Your task to perform on an android device: open app "Spotify" (install if not already installed) and enter user name: "infallible@icloud.com" and password: "implored" Image 0: 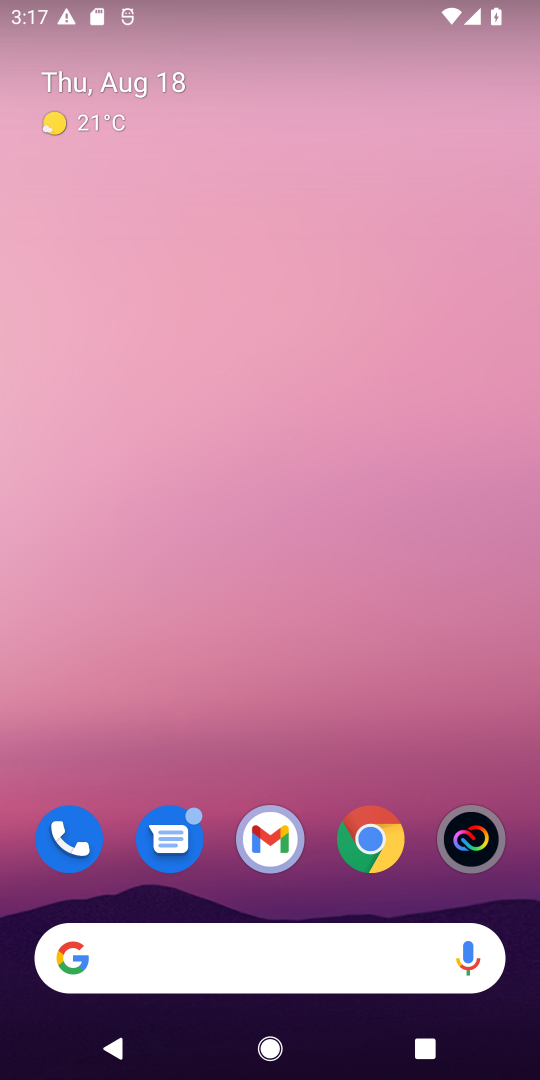
Step 0: drag from (302, 919) to (159, 9)
Your task to perform on an android device: open app "Spotify" (install if not already installed) and enter user name: "infallible@icloud.com" and password: "implored" Image 1: 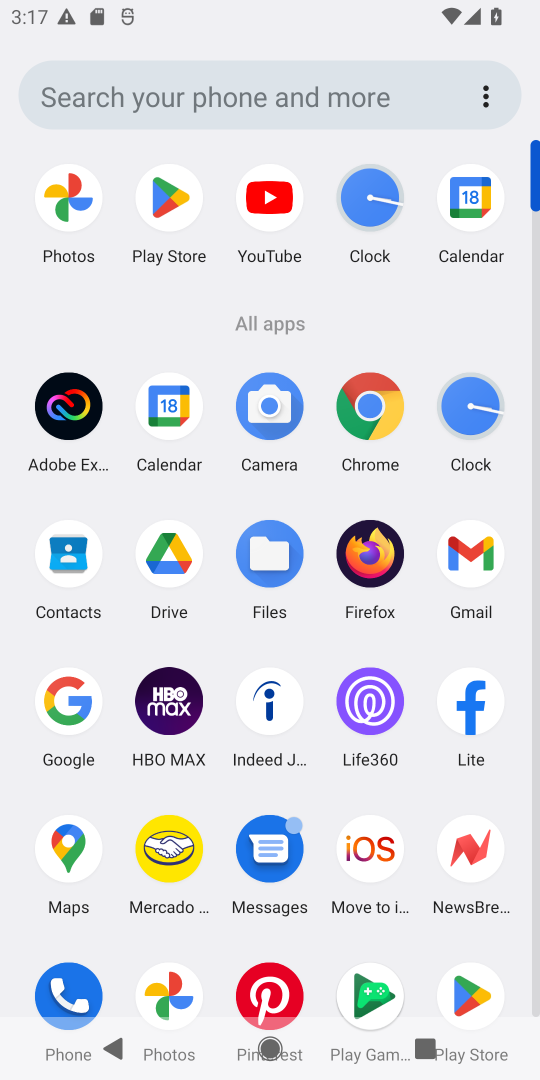
Step 1: click (461, 1004)
Your task to perform on an android device: open app "Spotify" (install if not already installed) and enter user name: "infallible@icloud.com" and password: "implored" Image 2: 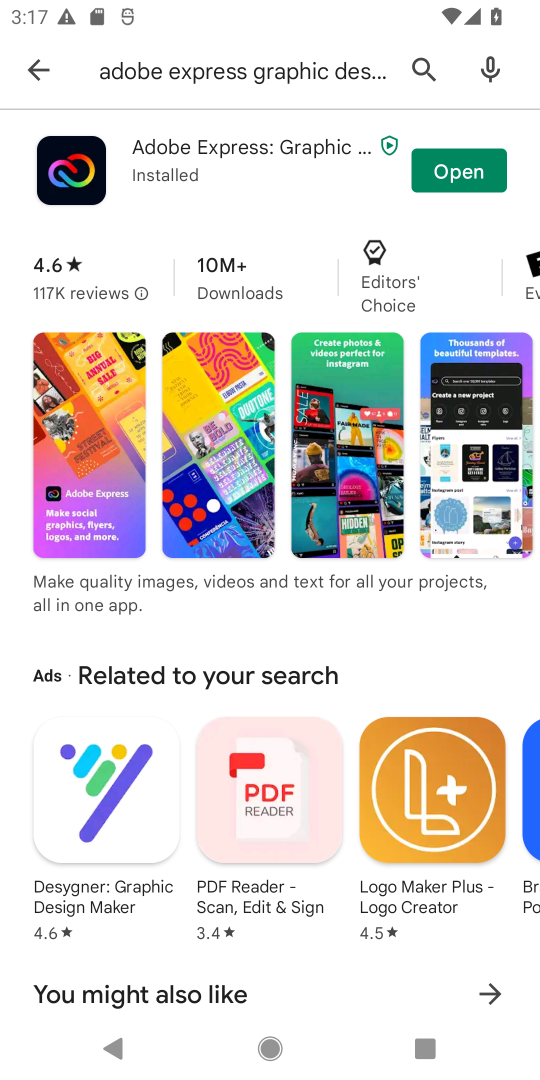
Step 2: click (32, 76)
Your task to perform on an android device: open app "Spotify" (install if not already installed) and enter user name: "infallible@icloud.com" and password: "implored" Image 3: 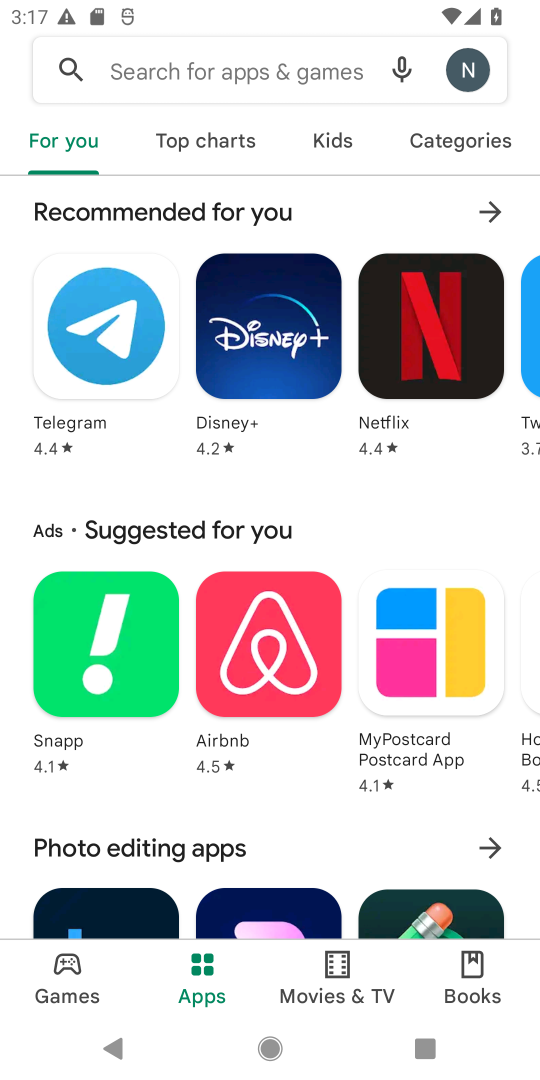
Step 3: click (190, 70)
Your task to perform on an android device: open app "Spotify" (install if not already installed) and enter user name: "infallible@icloud.com" and password: "implored" Image 4: 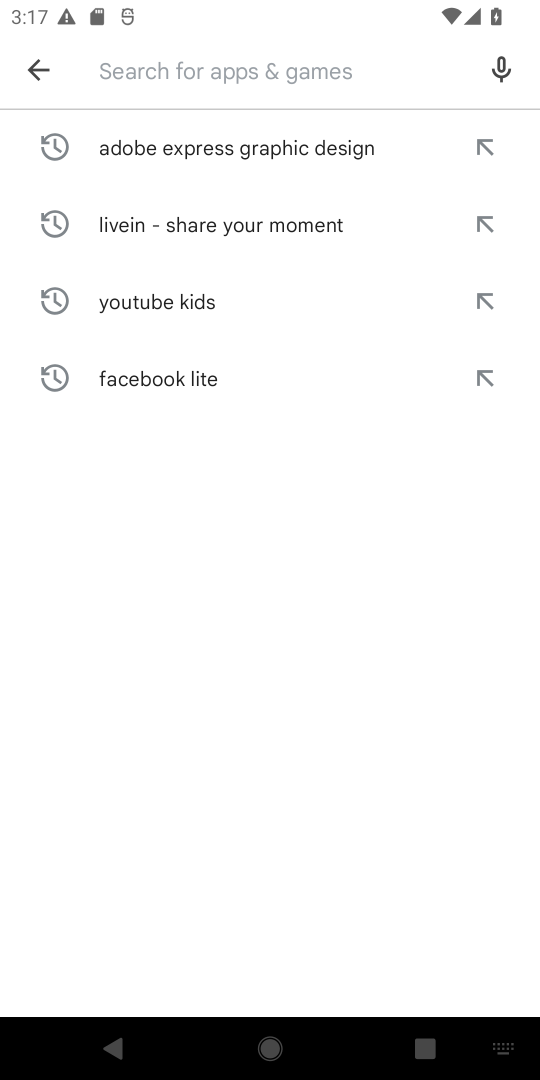
Step 4: type "Spotify"
Your task to perform on an android device: open app "Spotify" (install if not already installed) and enter user name: "infallible@icloud.com" and password: "implored" Image 5: 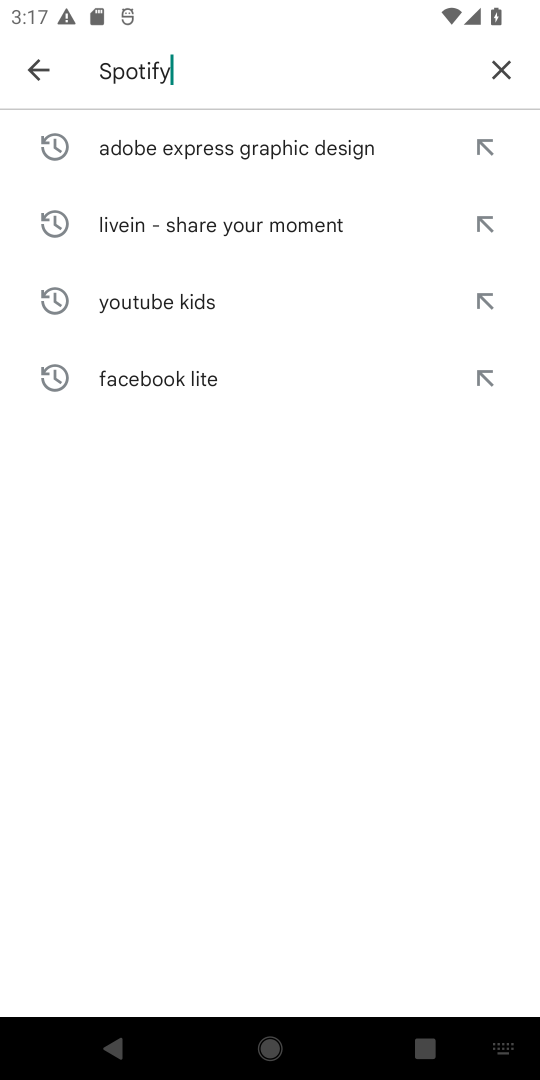
Step 5: type ""
Your task to perform on an android device: open app "Spotify" (install if not already installed) and enter user name: "infallible@icloud.com" and password: "implored" Image 6: 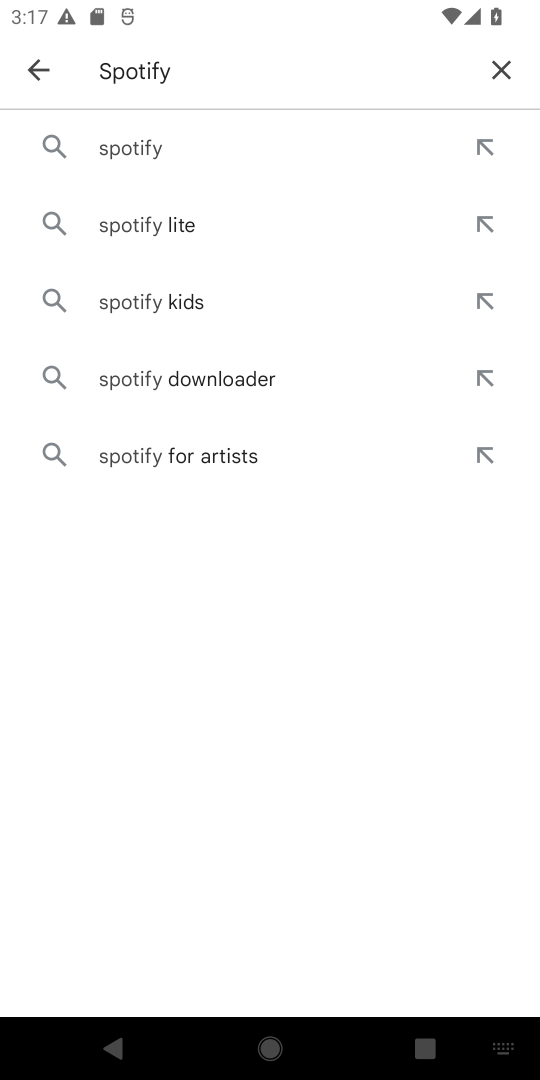
Step 6: click (162, 153)
Your task to perform on an android device: open app "Spotify" (install if not already installed) and enter user name: "infallible@icloud.com" and password: "implored" Image 7: 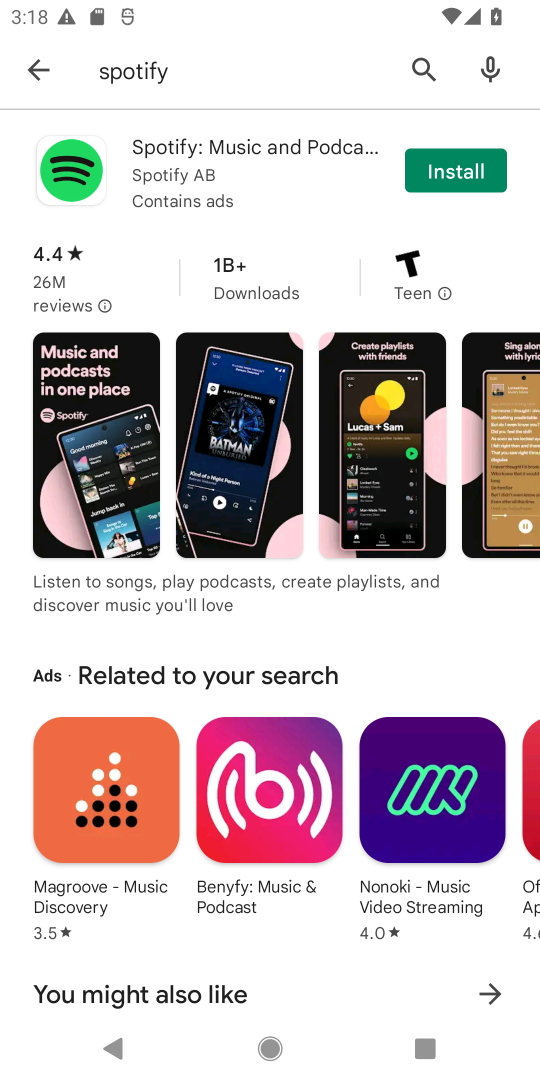
Step 7: click (456, 167)
Your task to perform on an android device: open app "Spotify" (install if not already installed) and enter user name: "infallible@icloud.com" and password: "implored" Image 8: 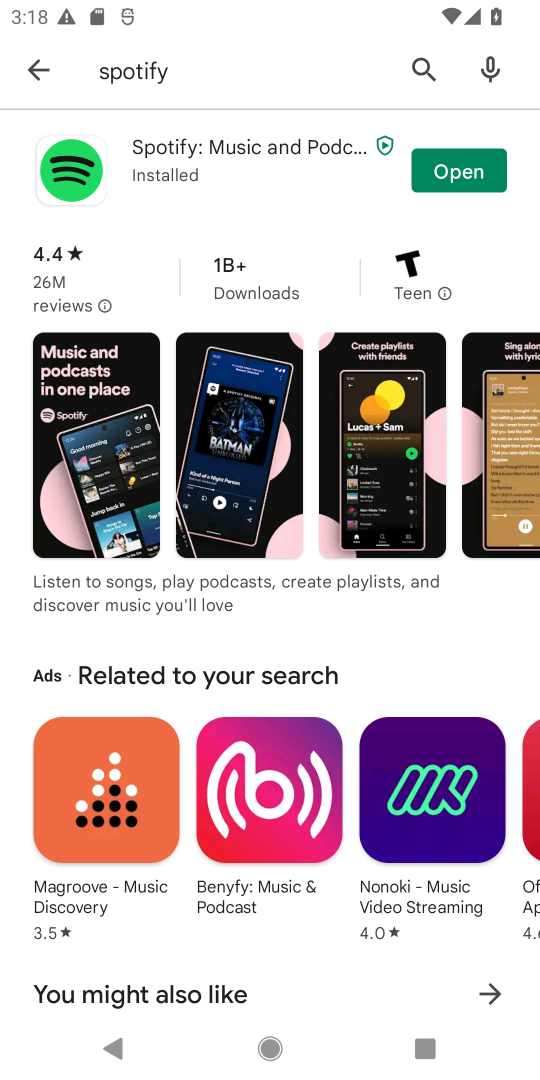
Step 8: click (452, 165)
Your task to perform on an android device: open app "Spotify" (install if not already installed) and enter user name: "infallible@icloud.com" and password: "implored" Image 9: 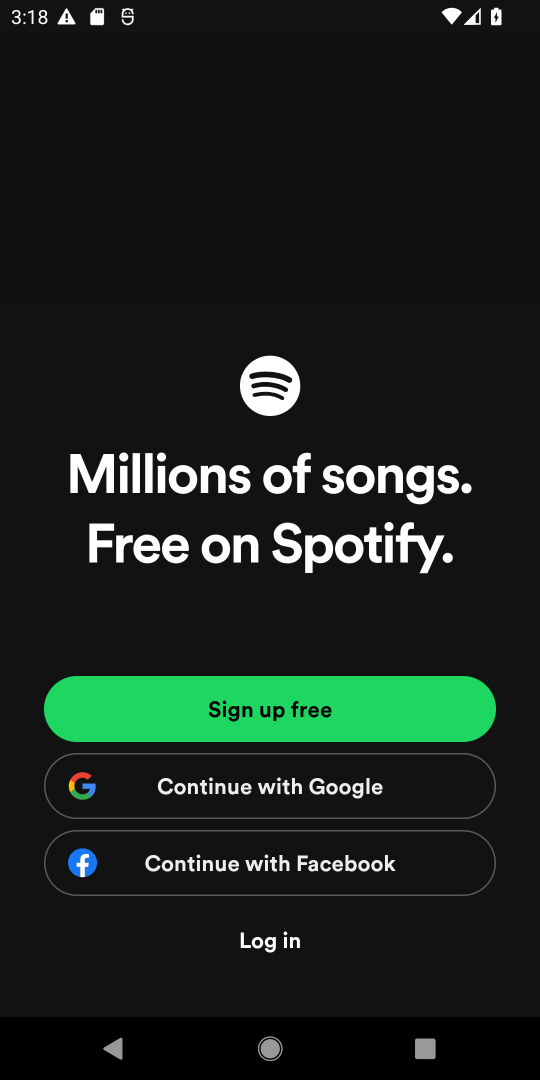
Step 9: click (279, 936)
Your task to perform on an android device: open app "Spotify" (install if not already installed) and enter user name: "infallible@icloud.com" and password: "implored" Image 10: 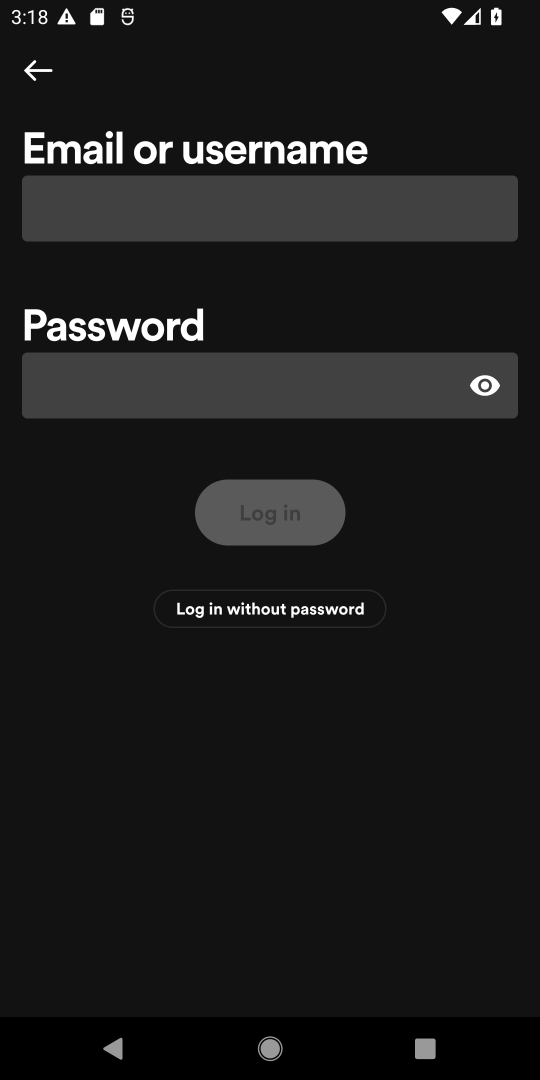
Step 10: click (152, 223)
Your task to perform on an android device: open app "Spotify" (install if not already installed) and enter user name: "infallible@icloud.com" and password: "implored" Image 11: 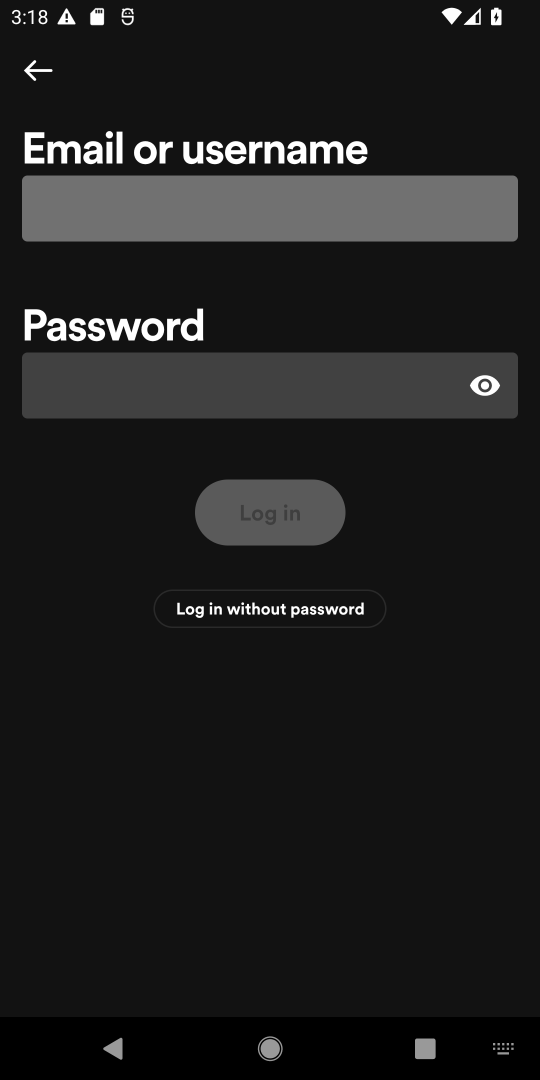
Step 11: type "infallible@icloud.com"
Your task to perform on an android device: open app "Spotify" (install if not already installed) and enter user name: "infallible@icloud.com" and password: "implored" Image 12: 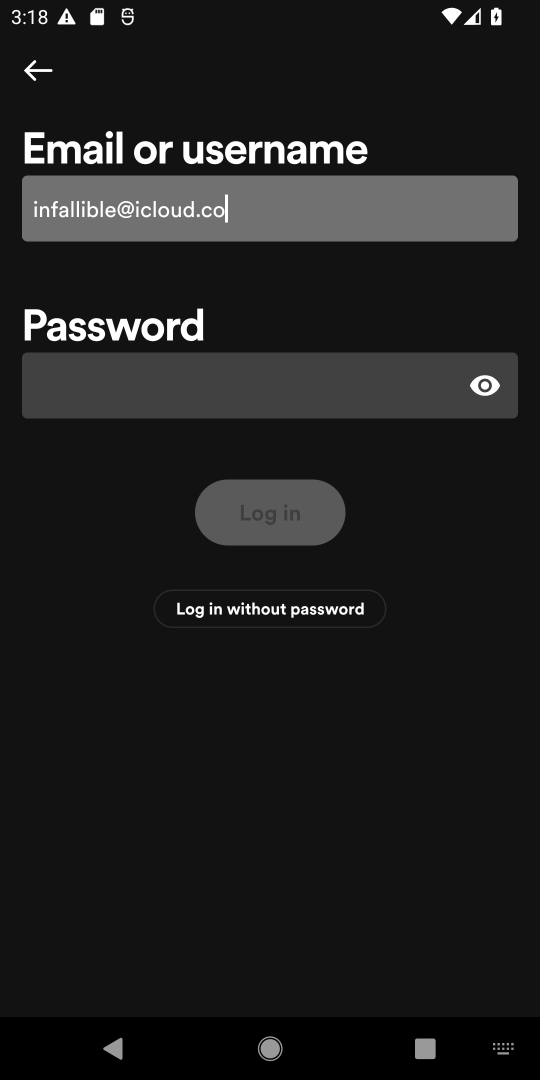
Step 12: type ""
Your task to perform on an android device: open app "Spotify" (install if not already installed) and enter user name: "infallible@icloud.com" and password: "implored" Image 13: 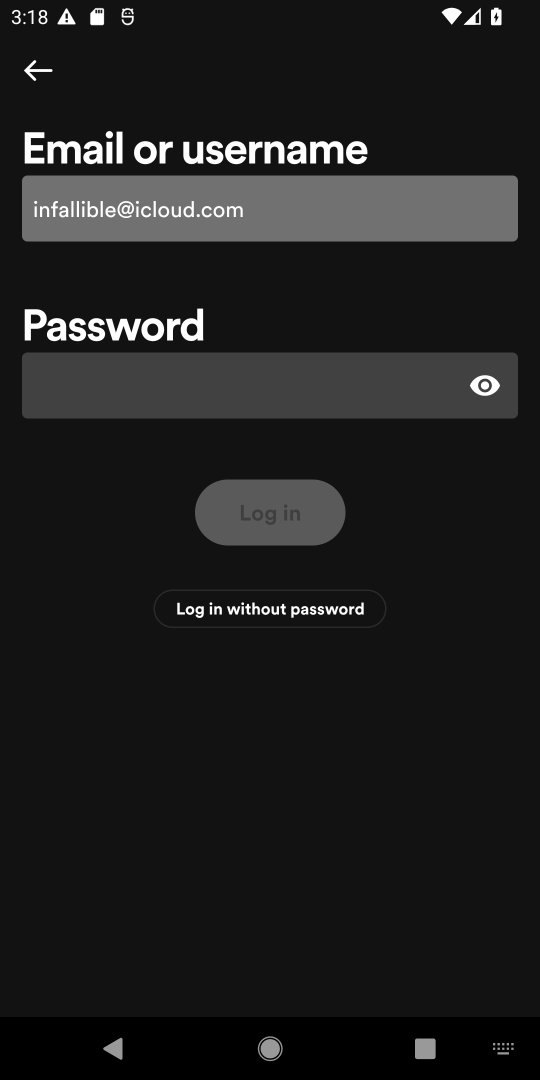
Step 13: click (264, 375)
Your task to perform on an android device: open app "Spotify" (install if not already installed) and enter user name: "infallible@icloud.com" and password: "implored" Image 14: 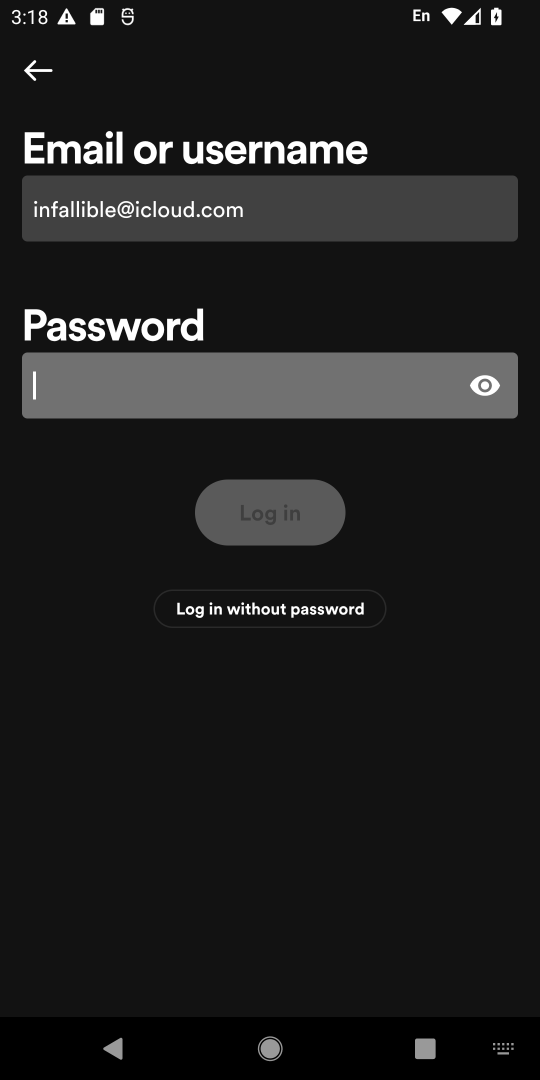
Step 14: type "implored"
Your task to perform on an android device: open app "Spotify" (install if not already installed) and enter user name: "infallible@icloud.com" and password: "implored" Image 15: 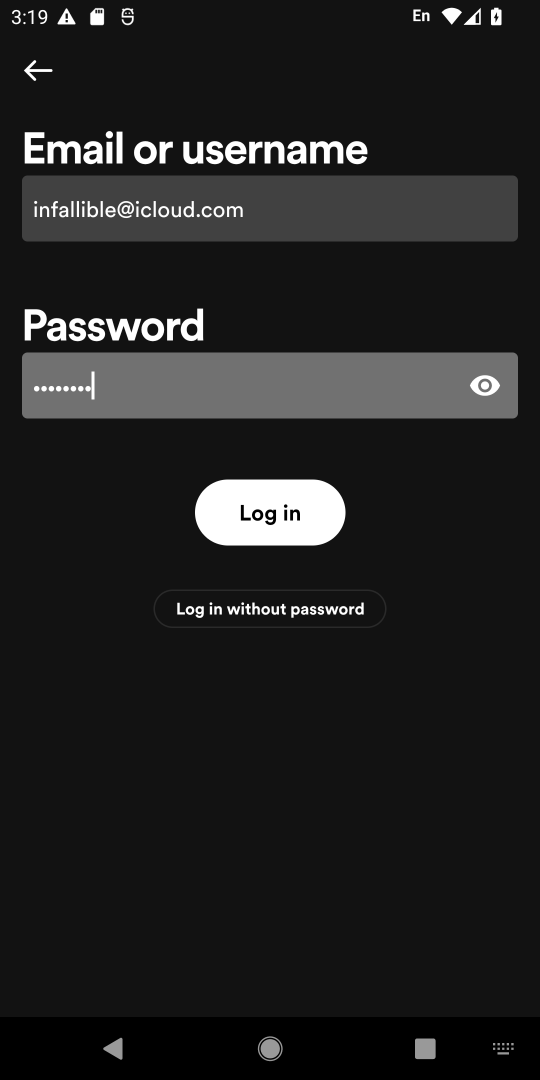
Step 15: task complete